Your task to perform on an android device: show emergency info Image 0: 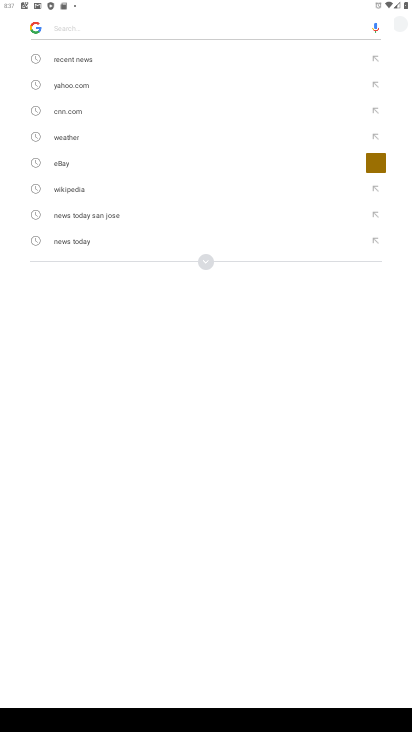
Step 0: press home button
Your task to perform on an android device: show emergency info Image 1: 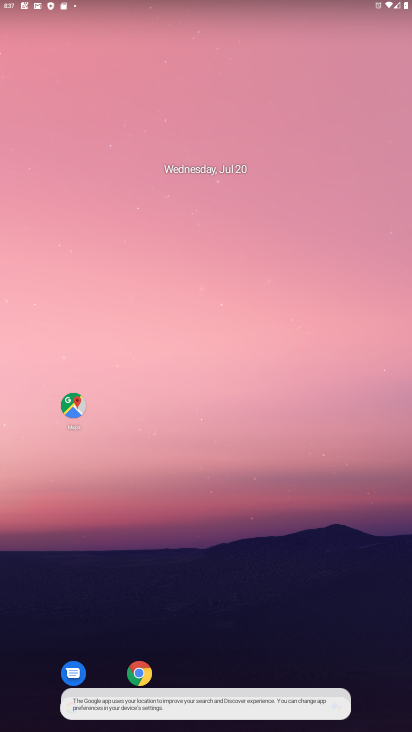
Step 1: drag from (196, 656) to (202, 46)
Your task to perform on an android device: show emergency info Image 2: 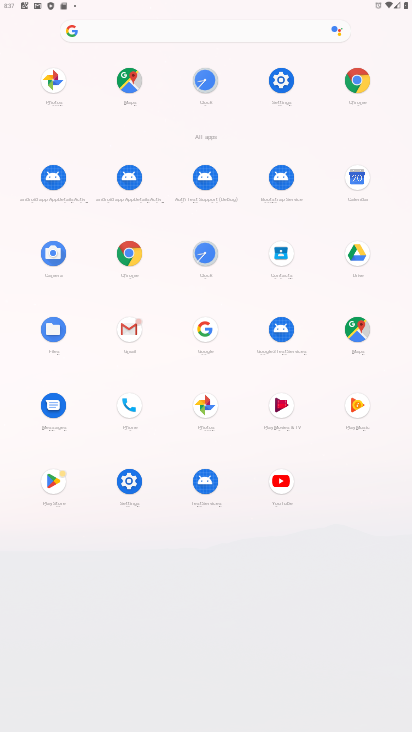
Step 2: click (127, 481)
Your task to perform on an android device: show emergency info Image 3: 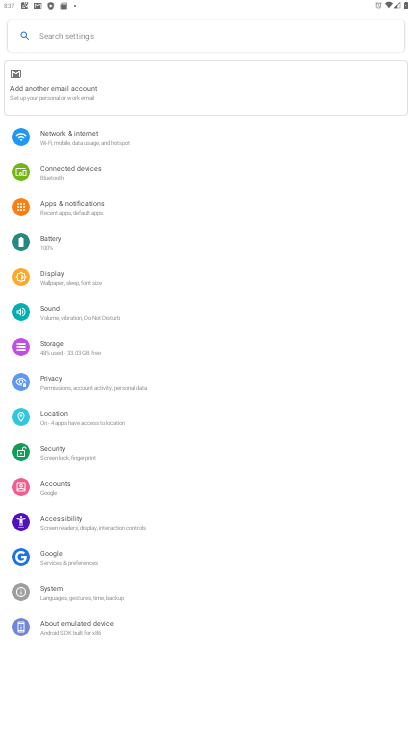
Step 3: click (91, 625)
Your task to perform on an android device: show emergency info Image 4: 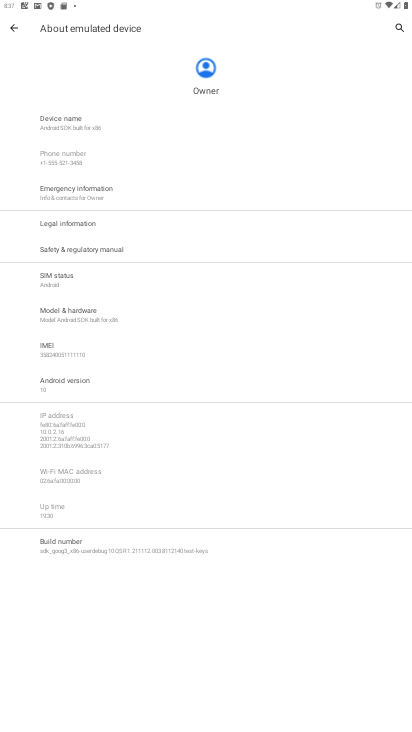
Step 4: click (97, 200)
Your task to perform on an android device: show emergency info Image 5: 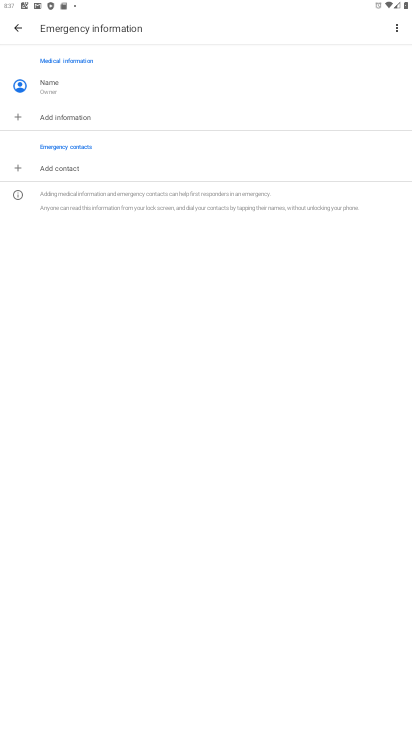
Step 5: task complete